Your task to perform on an android device: open chrome and create a bookmark for the current page Image 0: 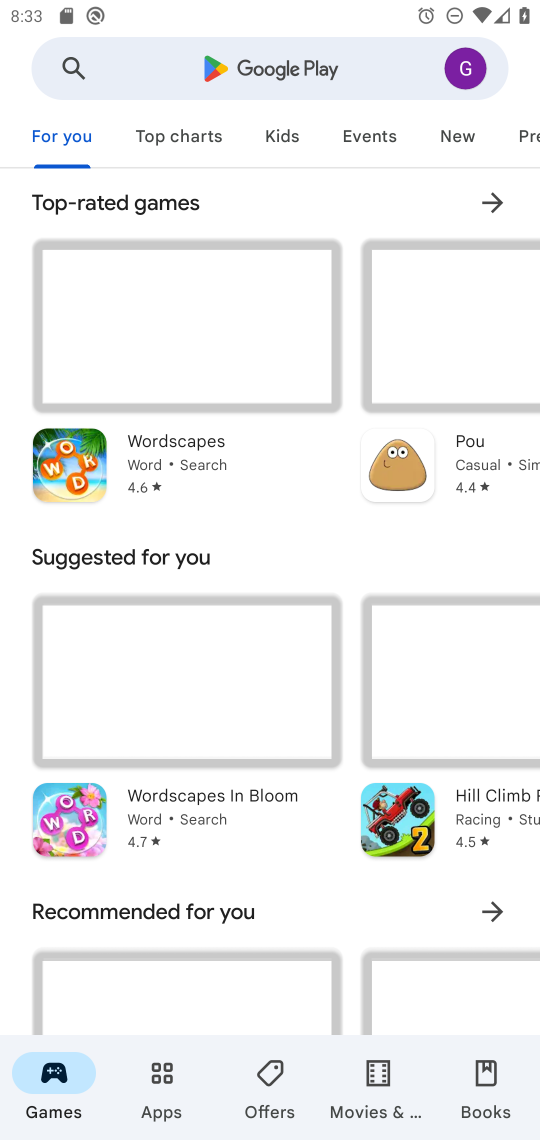
Step 0: press home button
Your task to perform on an android device: open chrome and create a bookmark for the current page Image 1: 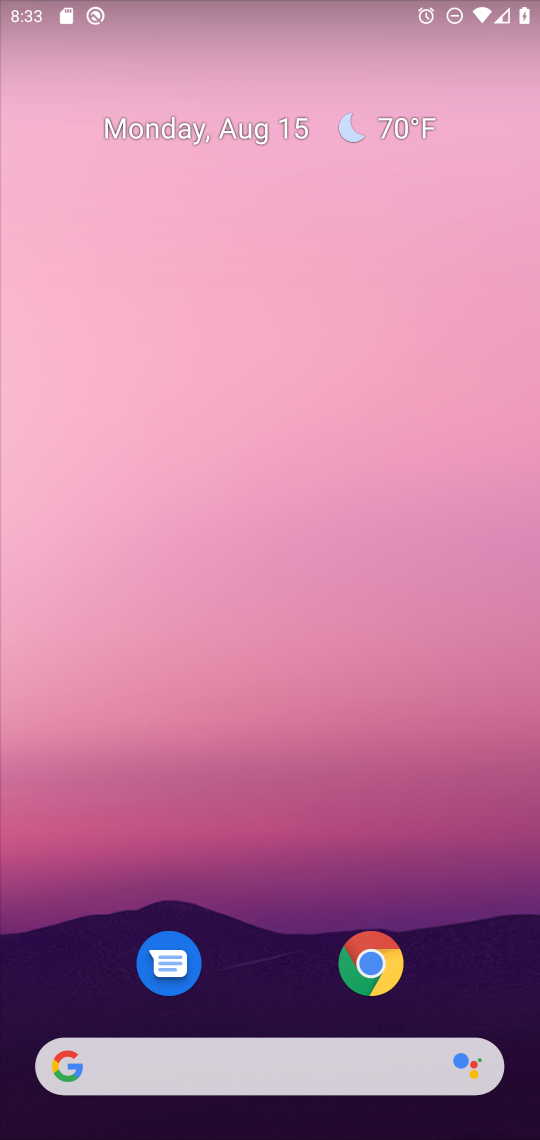
Step 1: click (382, 981)
Your task to perform on an android device: open chrome and create a bookmark for the current page Image 2: 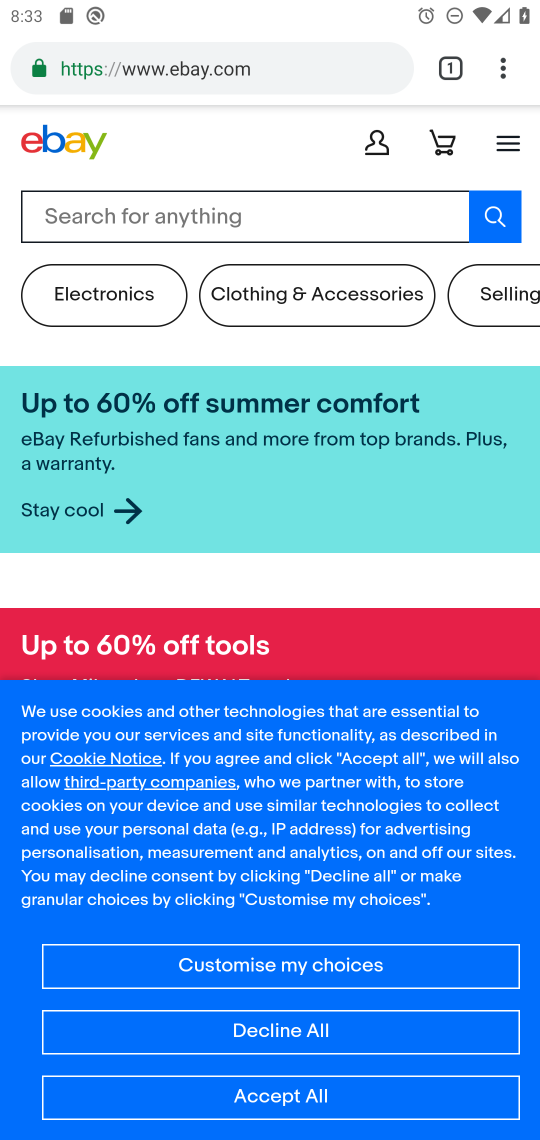
Step 2: click (522, 68)
Your task to perform on an android device: open chrome and create a bookmark for the current page Image 3: 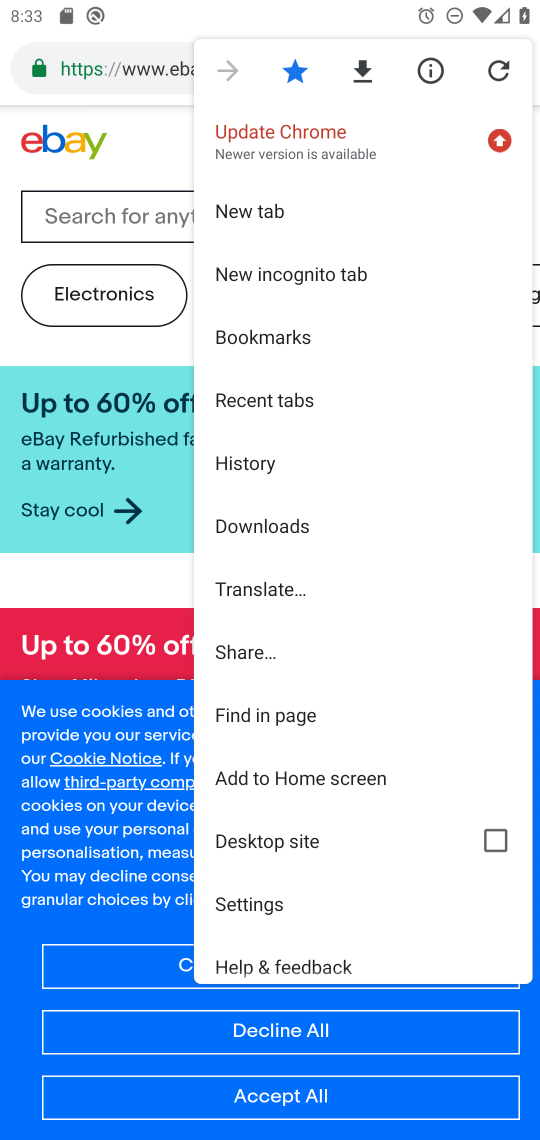
Step 3: task complete